Your task to perform on an android device: Open Maps and search for coffee Image 0: 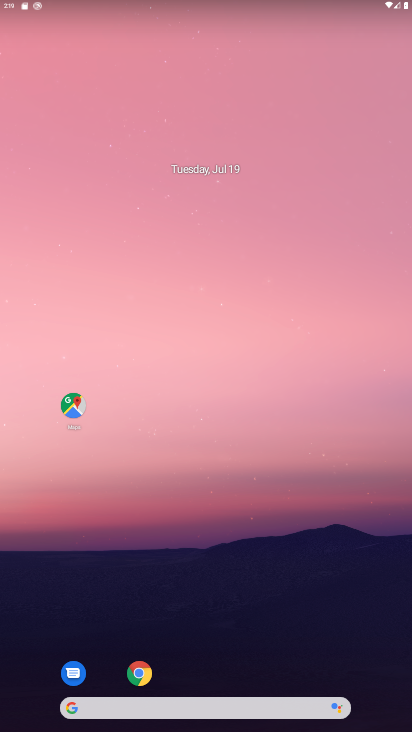
Step 0: click (78, 404)
Your task to perform on an android device: Open Maps and search for coffee Image 1: 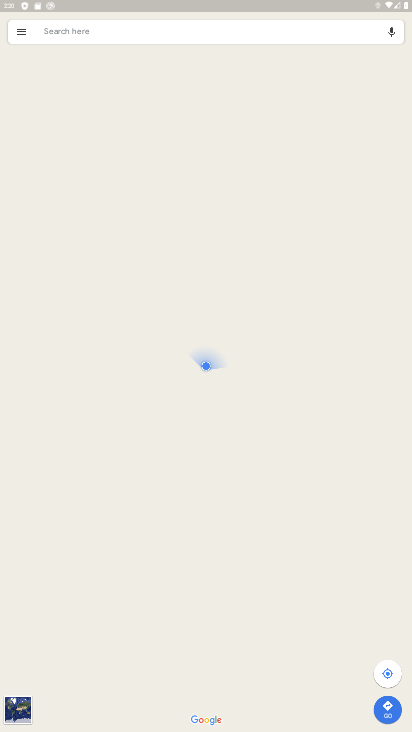
Step 1: click (234, 35)
Your task to perform on an android device: Open Maps and search for coffee Image 2: 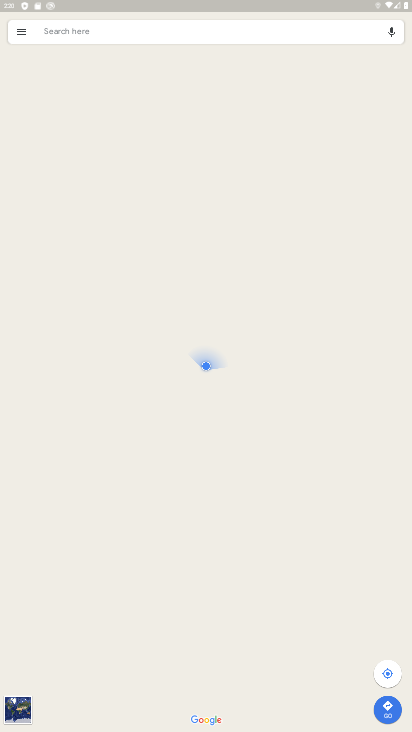
Step 2: click (177, 33)
Your task to perform on an android device: Open Maps and search for coffee Image 3: 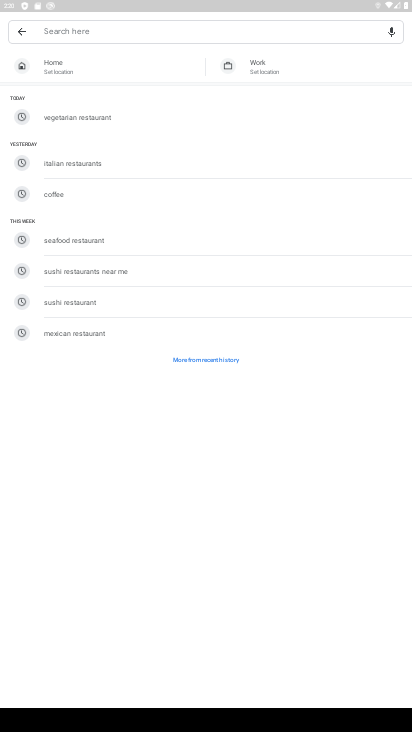
Step 3: type "coffee"
Your task to perform on an android device: Open Maps and search for coffee Image 4: 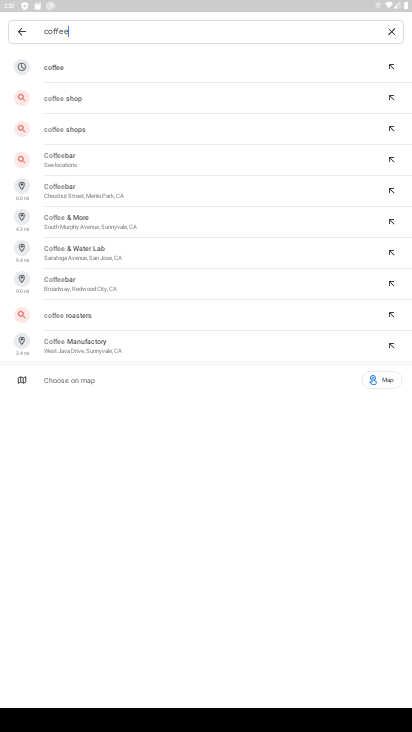
Step 4: click (87, 78)
Your task to perform on an android device: Open Maps and search for coffee Image 5: 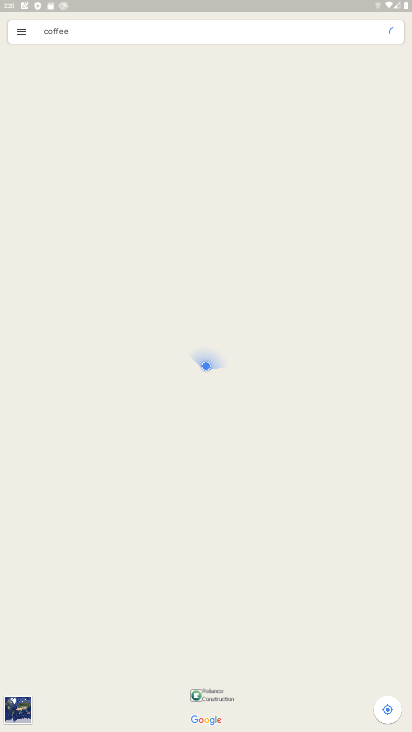
Step 5: task complete